Your task to perform on an android device: check battery use Image 0: 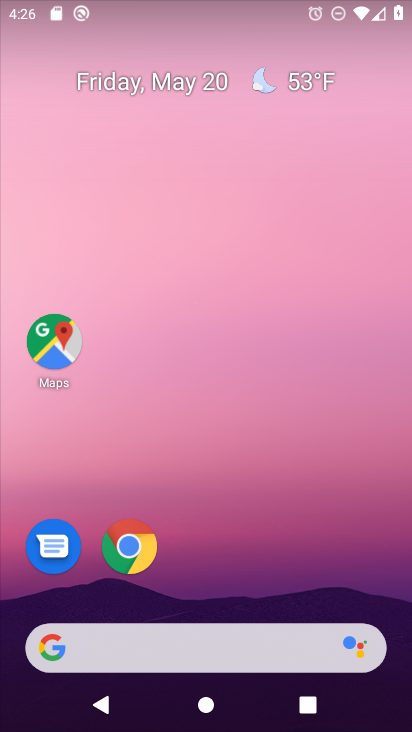
Step 0: drag from (263, 619) to (246, 123)
Your task to perform on an android device: check battery use Image 1: 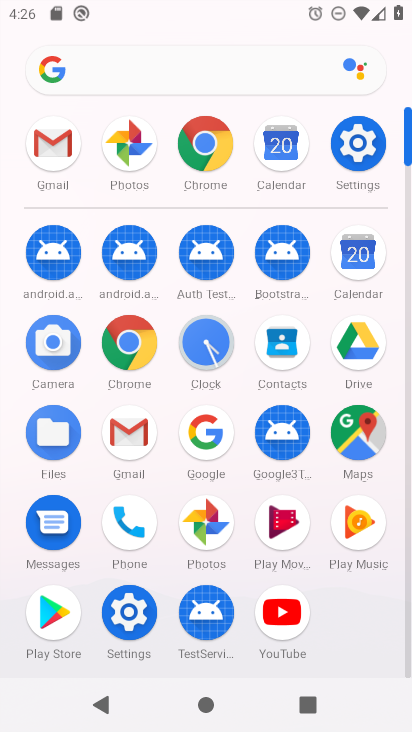
Step 1: click (364, 144)
Your task to perform on an android device: check battery use Image 2: 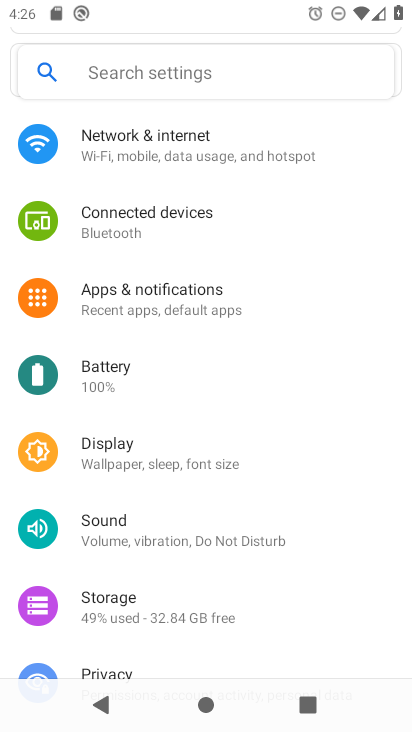
Step 2: drag from (182, 175) to (159, 564)
Your task to perform on an android device: check battery use Image 3: 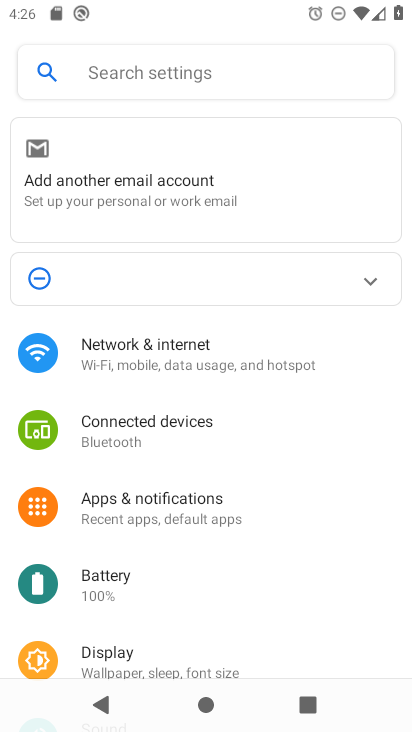
Step 3: drag from (182, 587) to (239, 288)
Your task to perform on an android device: check battery use Image 4: 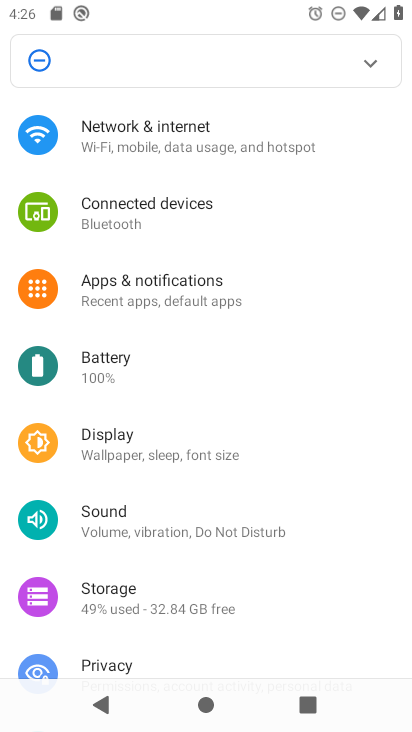
Step 4: click (121, 358)
Your task to perform on an android device: check battery use Image 5: 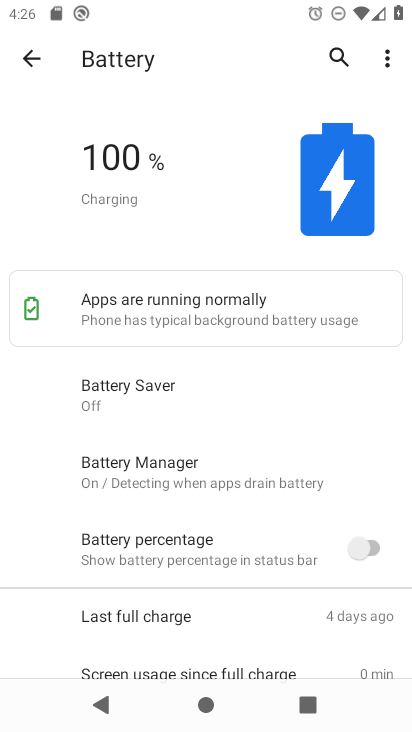
Step 5: task complete